Your task to perform on an android device: Go to Google maps Image 0: 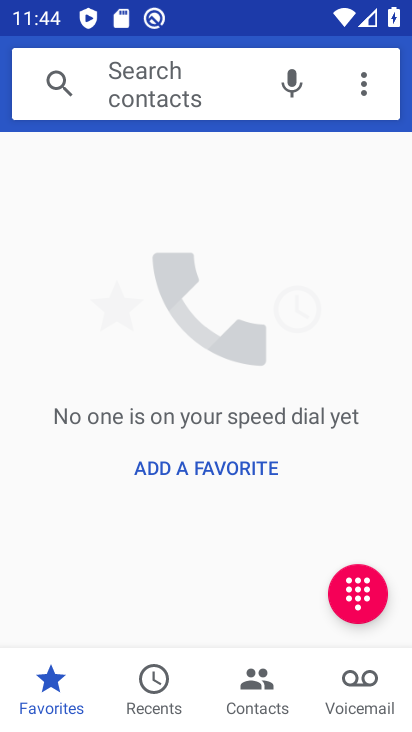
Step 0: drag from (256, 623) to (395, 264)
Your task to perform on an android device: Go to Google maps Image 1: 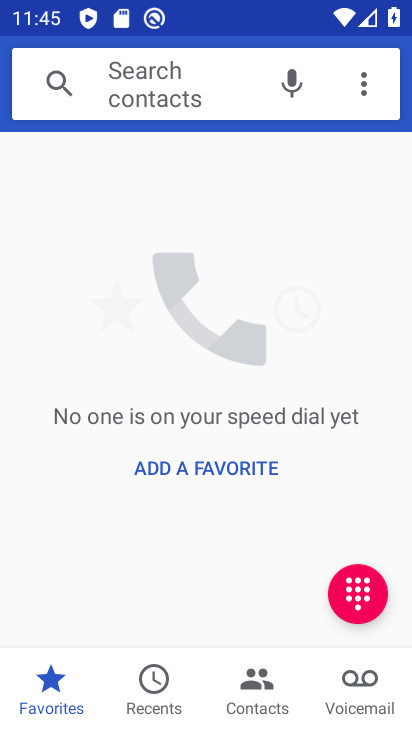
Step 1: press home button
Your task to perform on an android device: Go to Google maps Image 2: 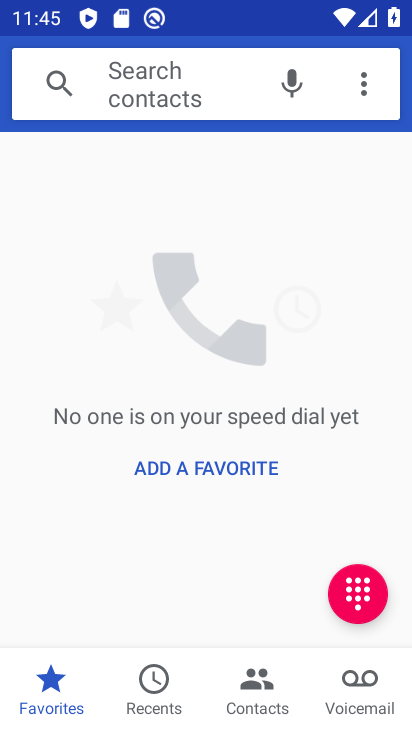
Step 2: click (410, 521)
Your task to perform on an android device: Go to Google maps Image 3: 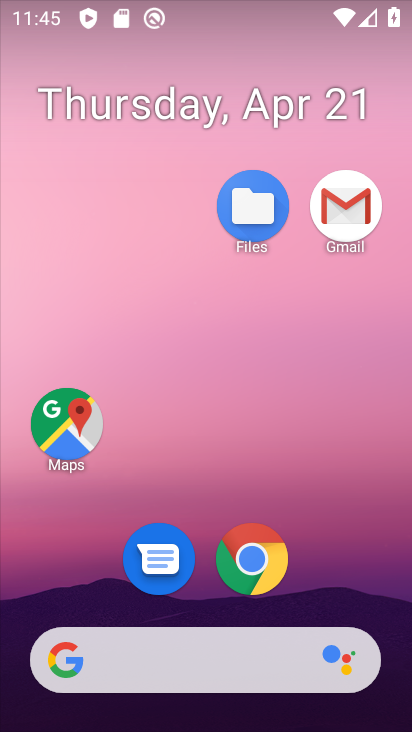
Step 3: click (72, 413)
Your task to perform on an android device: Go to Google maps Image 4: 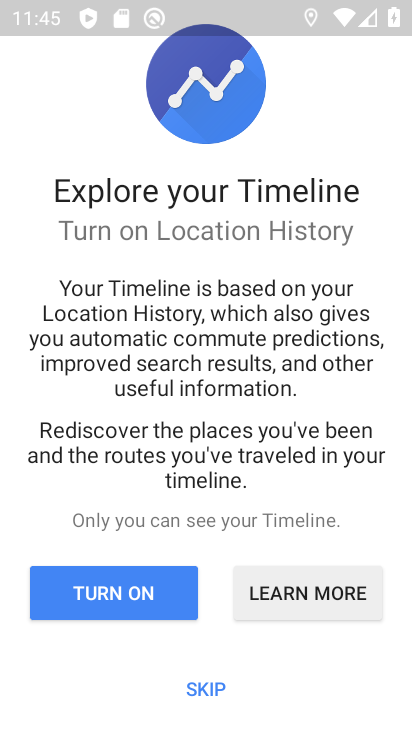
Step 4: click (201, 680)
Your task to perform on an android device: Go to Google maps Image 5: 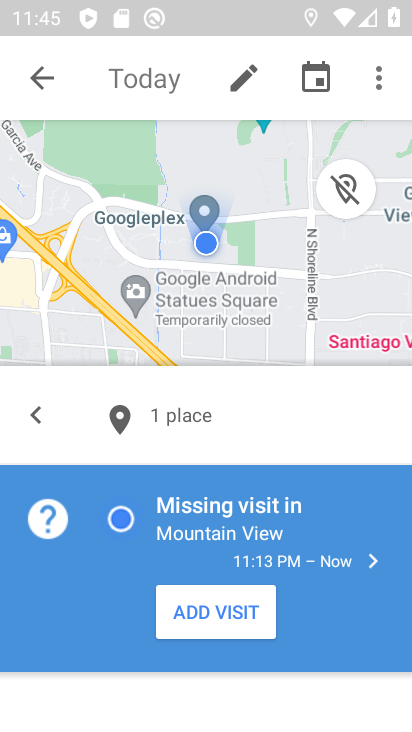
Step 5: task complete